Your task to perform on an android device: set an alarm Image 0: 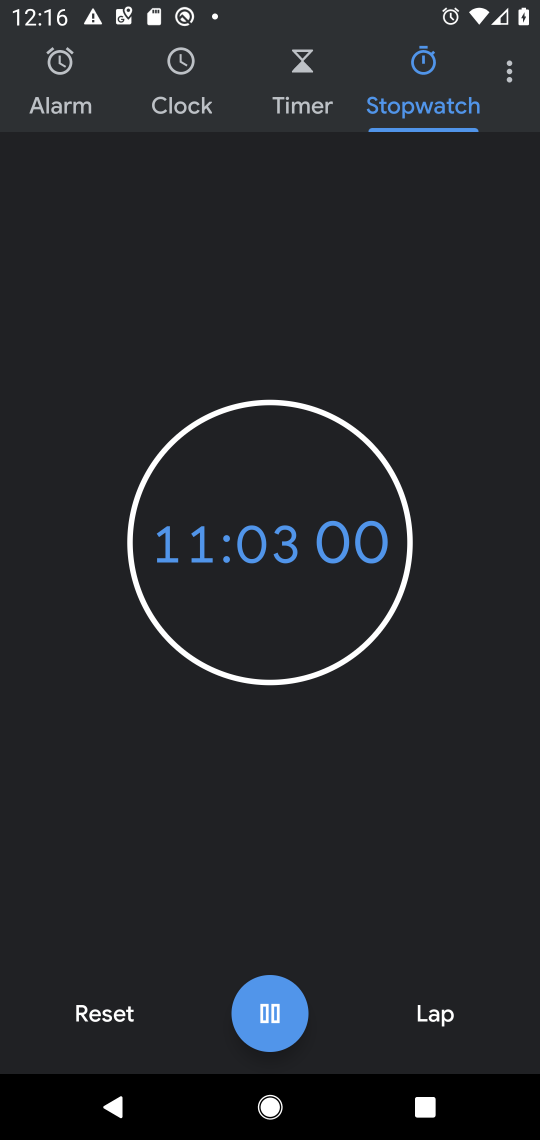
Step 0: press home button
Your task to perform on an android device: set an alarm Image 1: 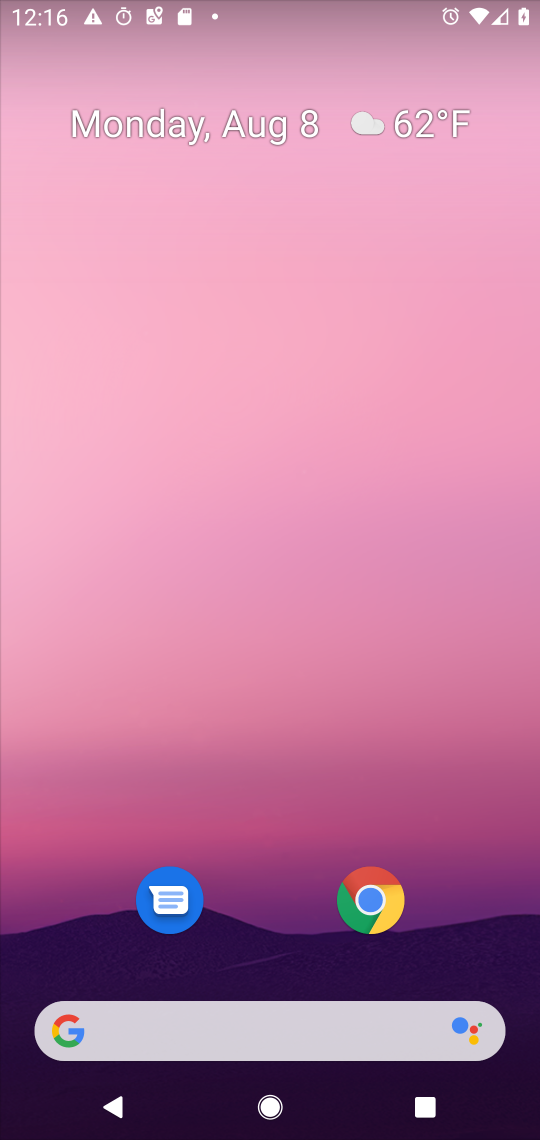
Step 1: drag from (295, 893) to (297, 147)
Your task to perform on an android device: set an alarm Image 2: 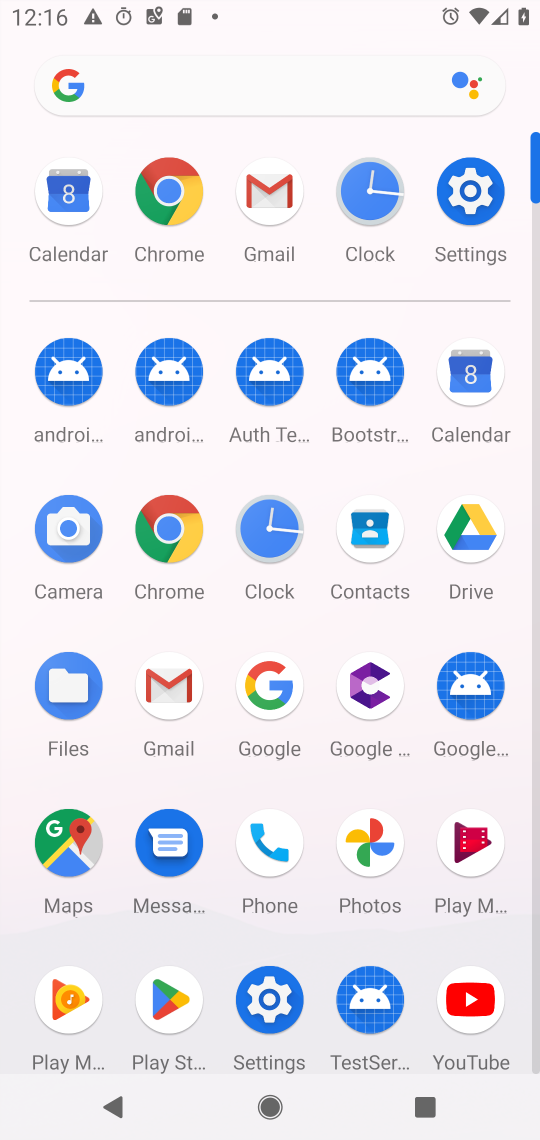
Step 2: click (372, 183)
Your task to perform on an android device: set an alarm Image 3: 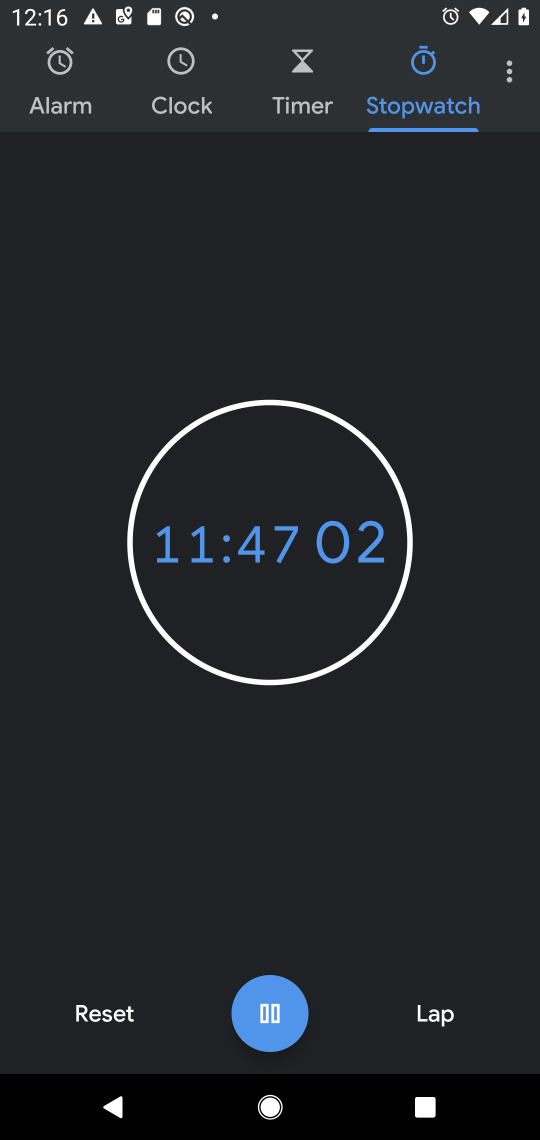
Step 3: click (66, 82)
Your task to perform on an android device: set an alarm Image 4: 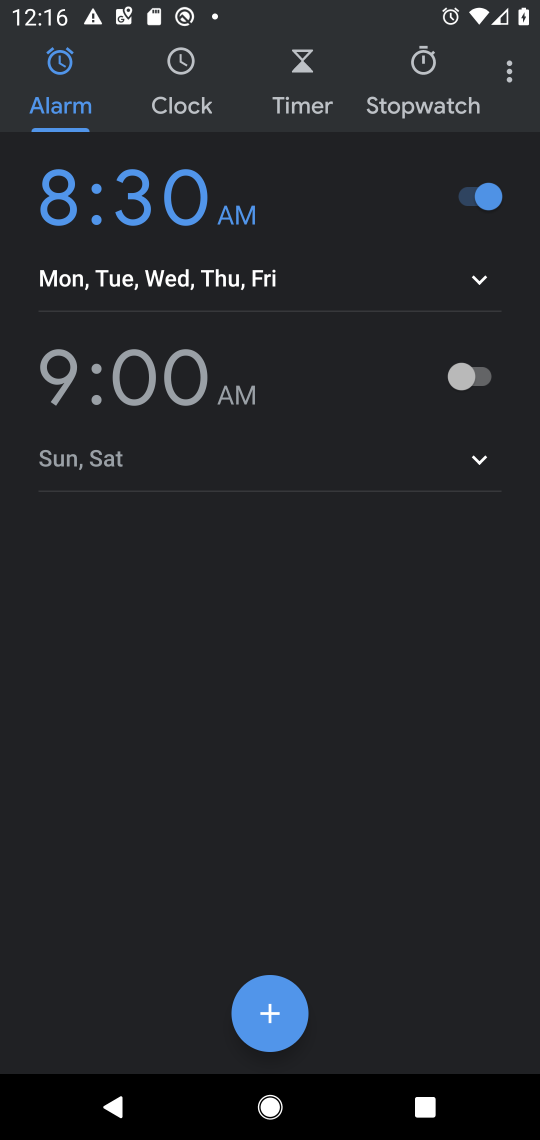
Step 4: click (484, 366)
Your task to perform on an android device: set an alarm Image 5: 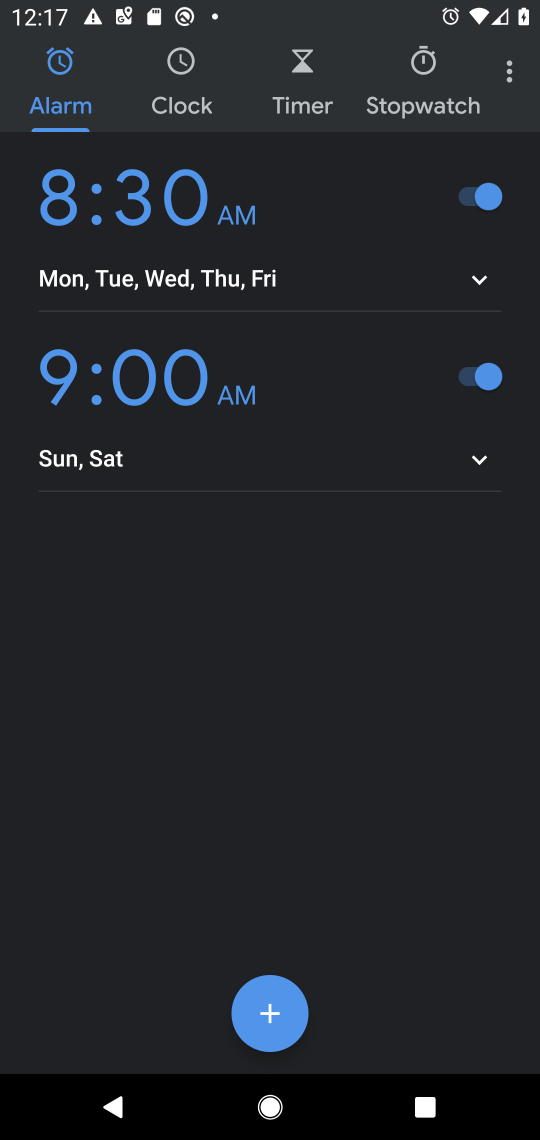
Step 5: task complete